Your task to perform on an android device: turn on wifi Image 0: 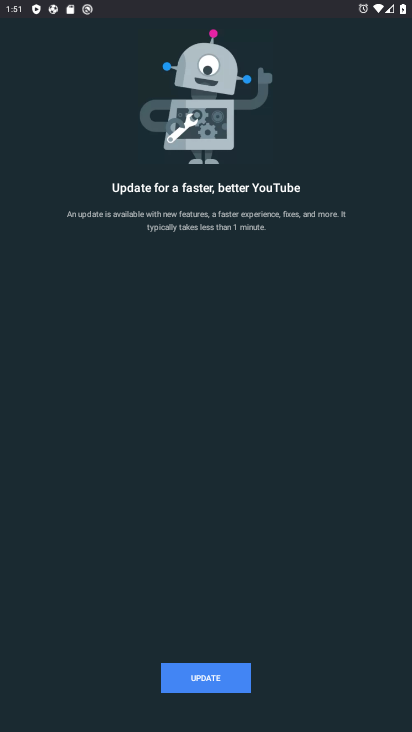
Step 0: press back button
Your task to perform on an android device: turn on wifi Image 1: 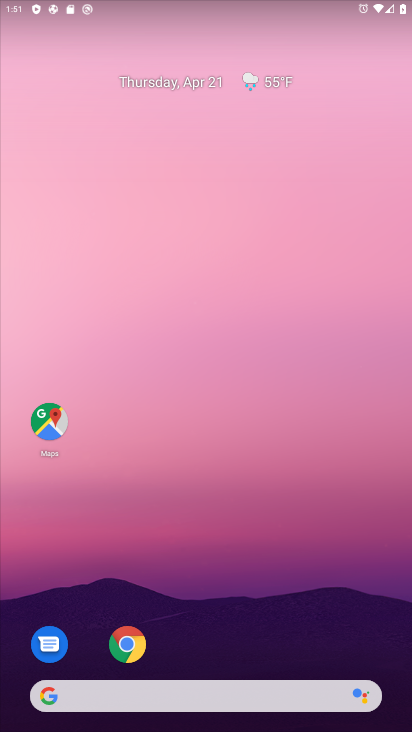
Step 1: drag from (256, 575) to (271, 137)
Your task to perform on an android device: turn on wifi Image 2: 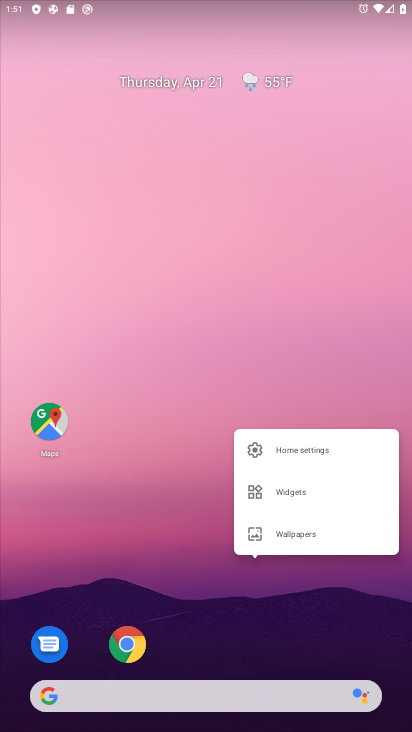
Step 2: drag from (188, 627) to (219, 342)
Your task to perform on an android device: turn on wifi Image 3: 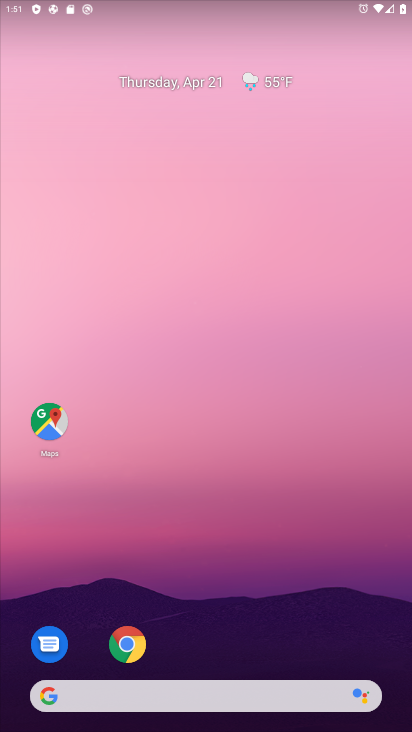
Step 3: drag from (232, 631) to (245, 61)
Your task to perform on an android device: turn on wifi Image 4: 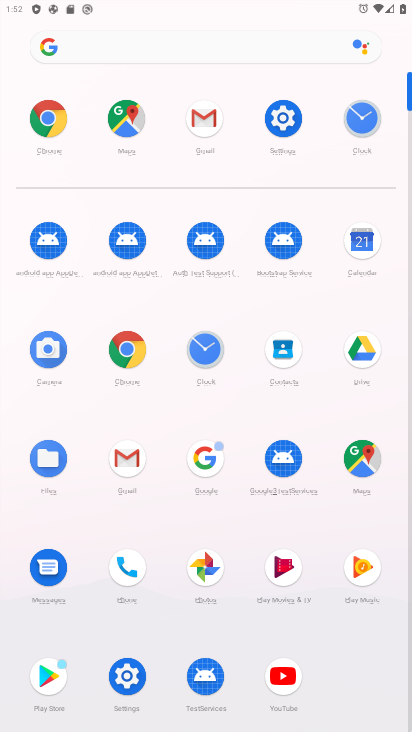
Step 4: click (280, 120)
Your task to perform on an android device: turn on wifi Image 5: 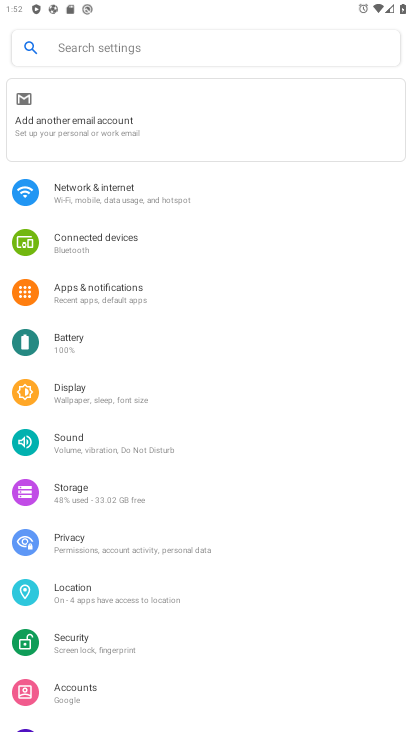
Step 5: click (243, 187)
Your task to perform on an android device: turn on wifi Image 6: 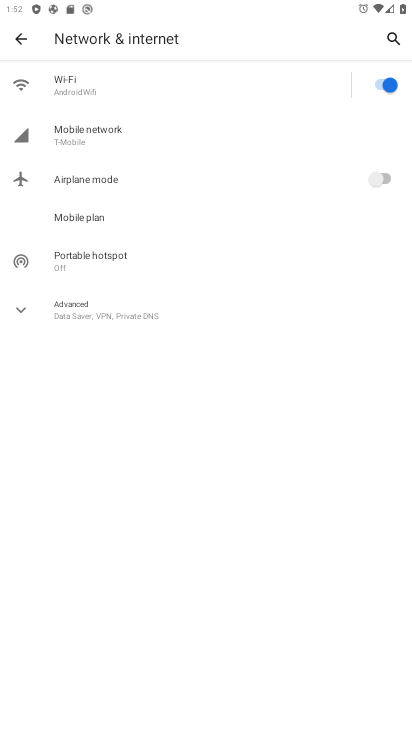
Step 6: task complete